Your task to perform on an android device: Go to Yahoo.com Image 0: 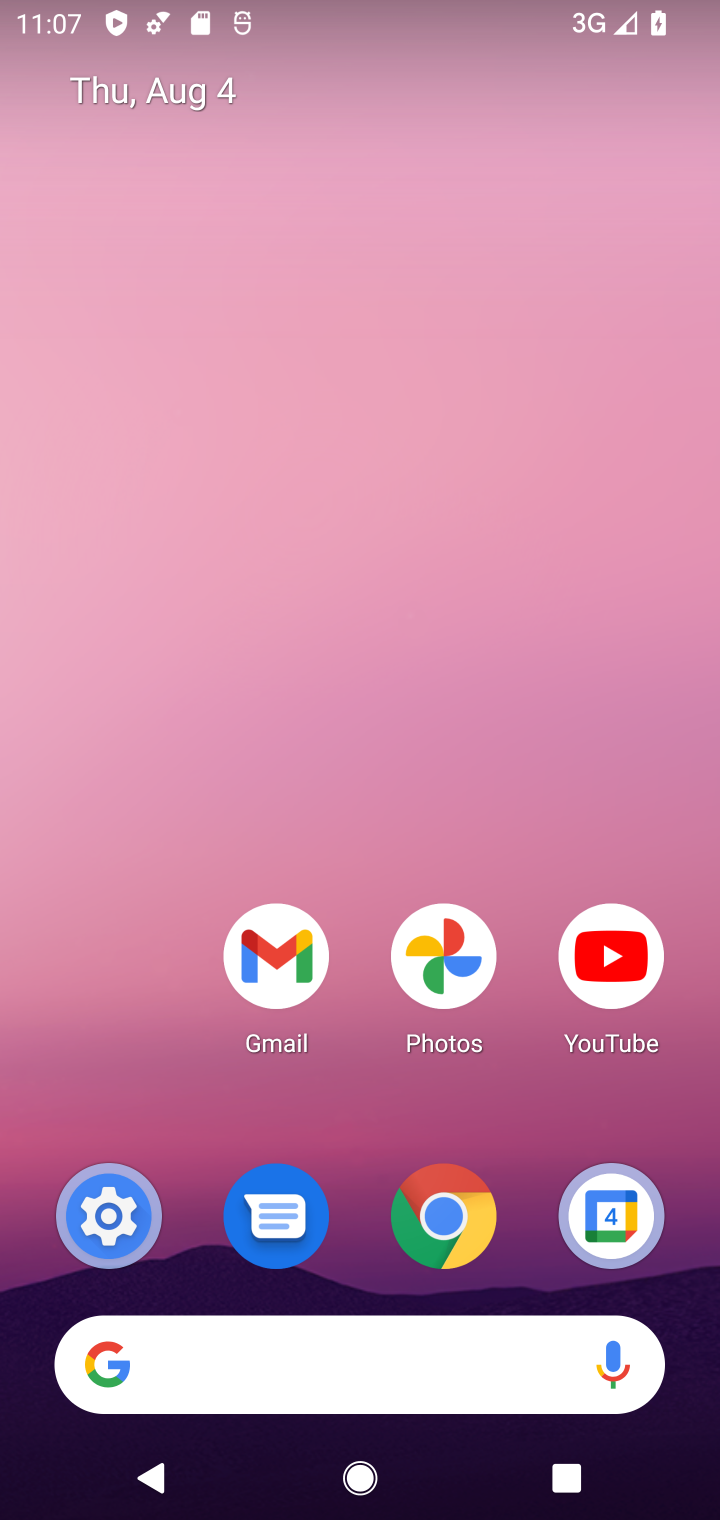
Step 0: click (299, 1383)
Your task to perform on an android device: Go to Yahoo.com Image 1: 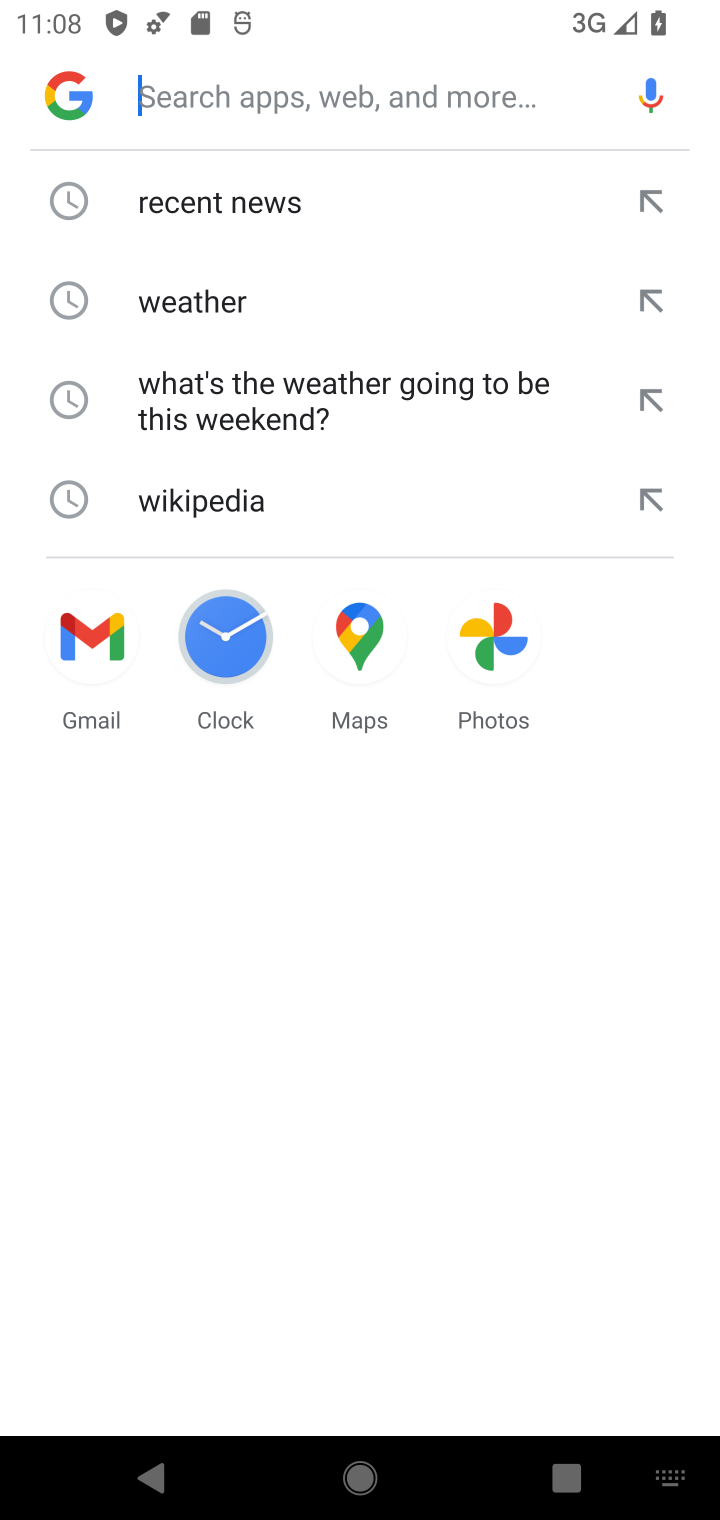
Step 1: type "yahoo.com"
Your task to perform on an android device: Go to Yahoo.com Image 2: 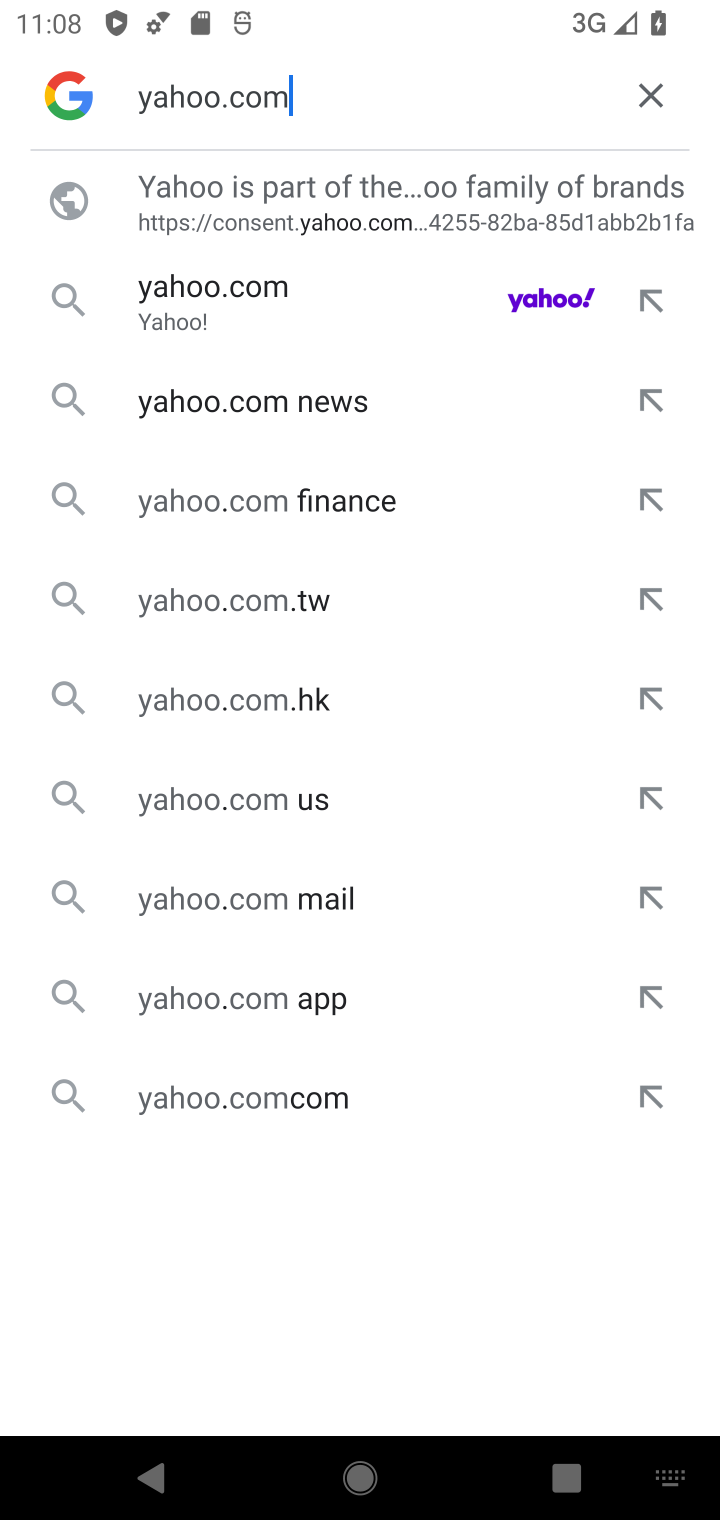
Step 2: click (401, 316)
Your task to perform on an android device: Go to Yahoo.com Image 3: 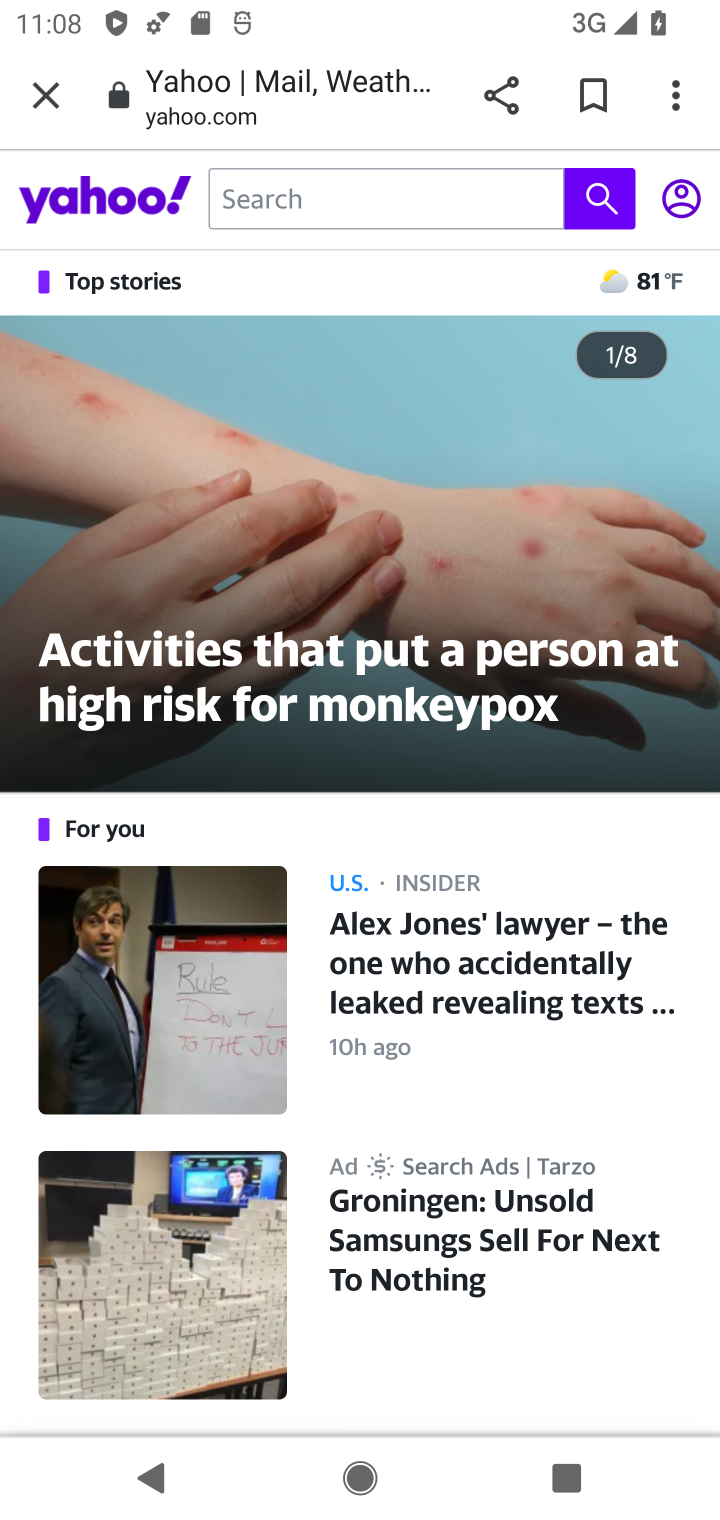
Step 3: task complete